Your task to perform on an android device: turn on wifi Image 0: 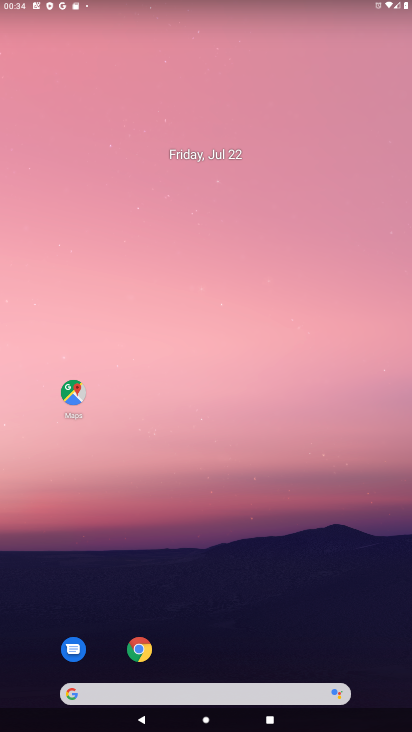
Step 0: drag from (217, 578) to (224, 0)
Your task to perform on an android device: turn on wifi Image 1: 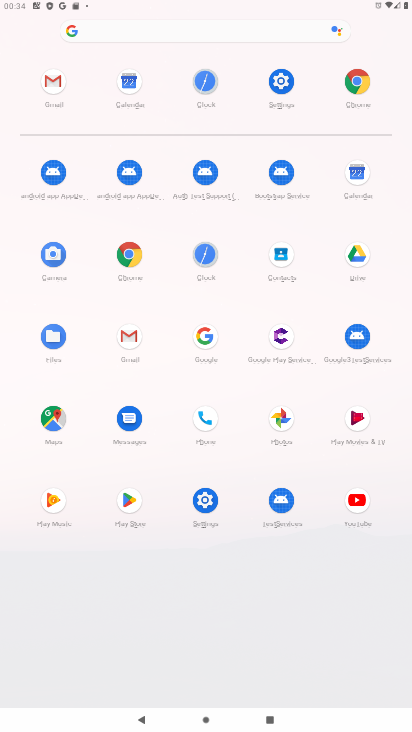
Step 1: click (280, 86)
Your task to perform on an android device: turn on wifi Image 2: 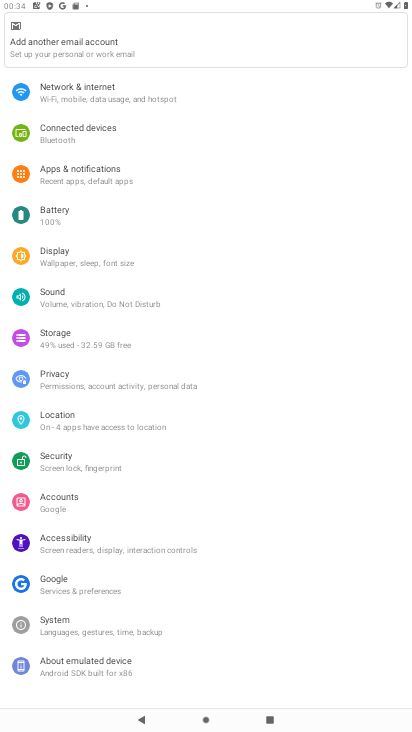
Step 2: click (109, 97)
Your task to perform on an android device: turn on wifi Image 3: 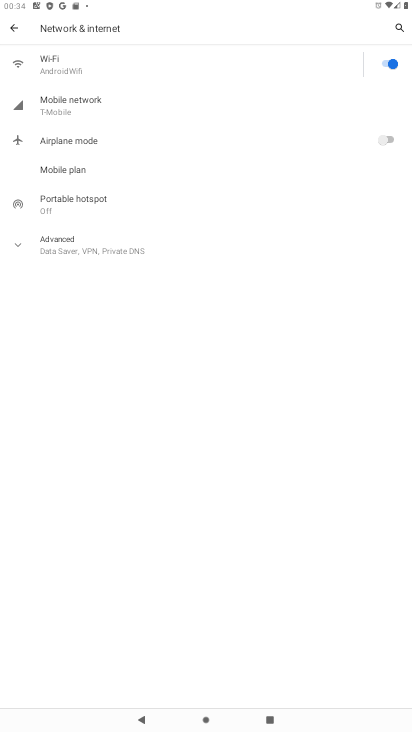
Step 3: click (211, 65)
Your task to perform on an android device: turn on wifi Image 4: 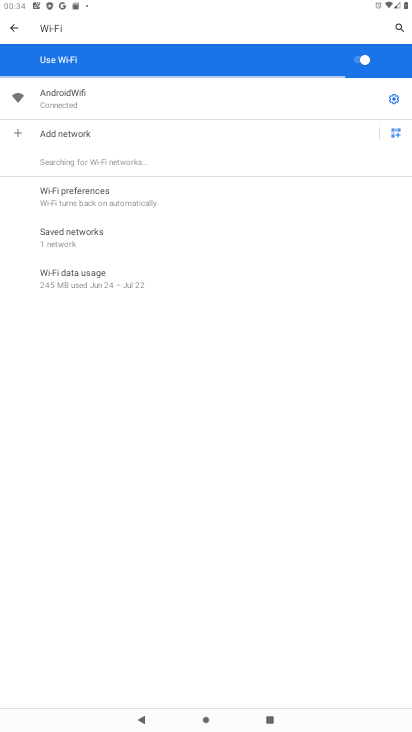
Step 4: task complete